Your task to perform on an android device: toggle wifi Image 0: 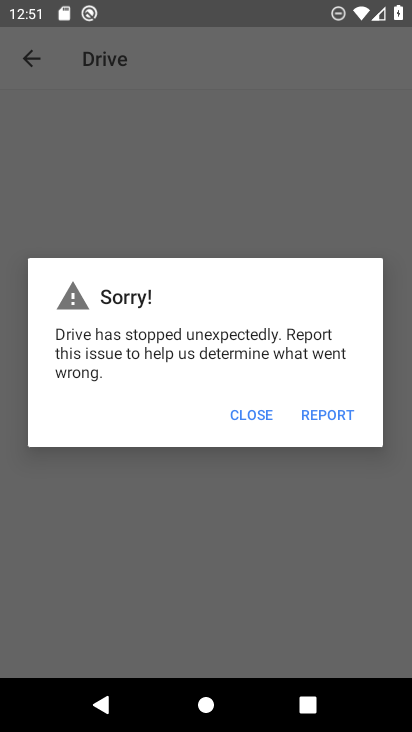
Step 0: drag from (289, 584) to (244, 457)
Your task to perform on an android device: toggle wifi Image 1: 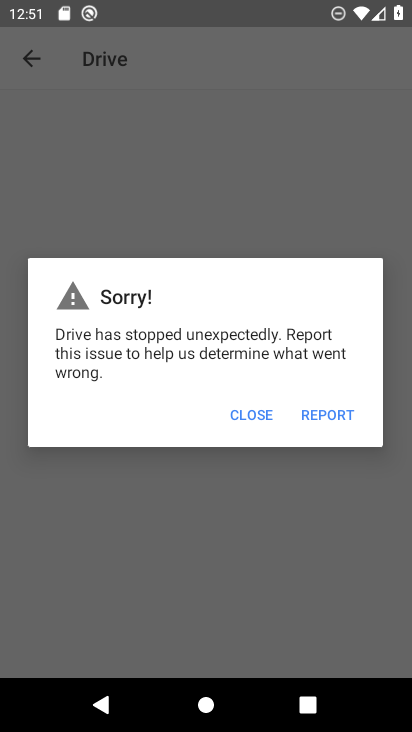
Step 1: press home button
Your task to perform on an android device: toggle wifi Image 2: 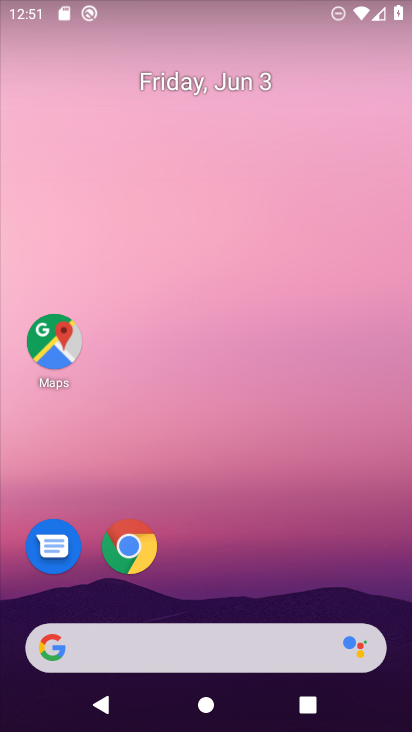
Step 2: drag from (275, 565) to (213, 82)
Your task to perform on an android device: toggle wifi Image 3: 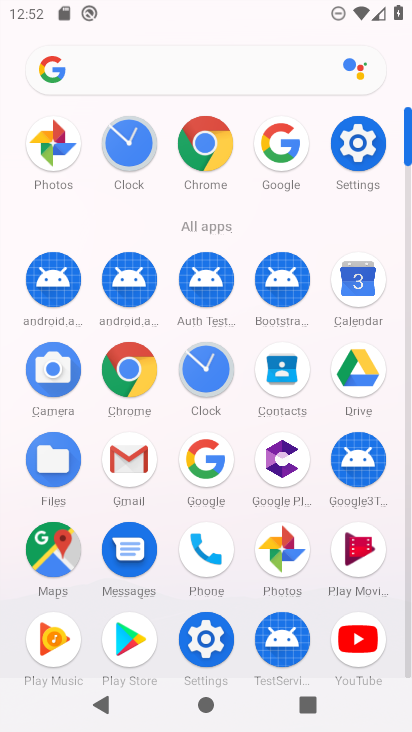
Step 3: click (358, 141)
Your task to perform on an android device: toggle wifi Image 4: 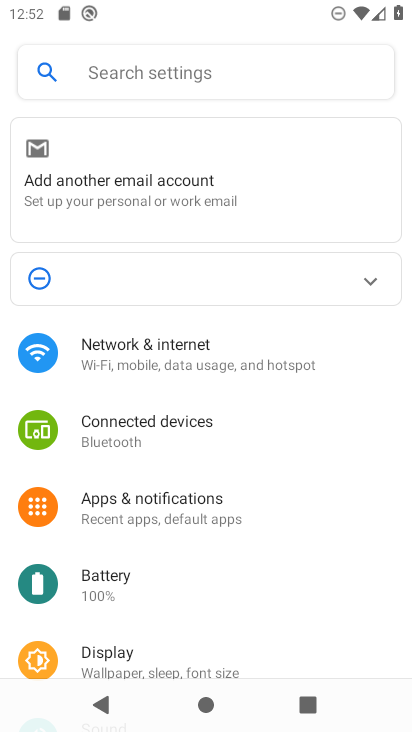
Step 4: click (162, 370)
Your task to perform on an android device: toggle wifi Image 5: 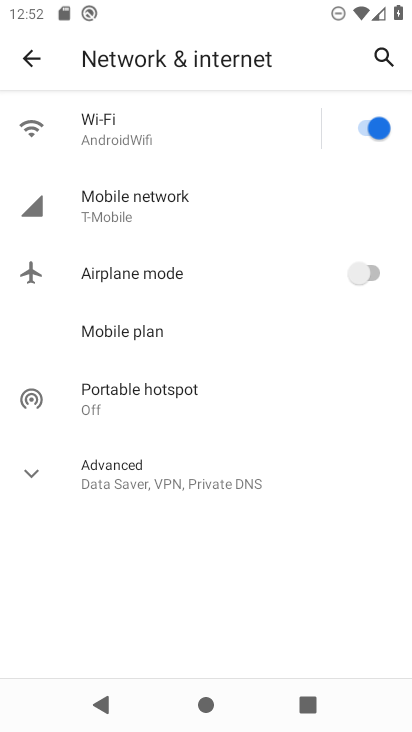
Step 5: click (363, 122)
Your task to perform on an android device: toggle wifi Image 6: 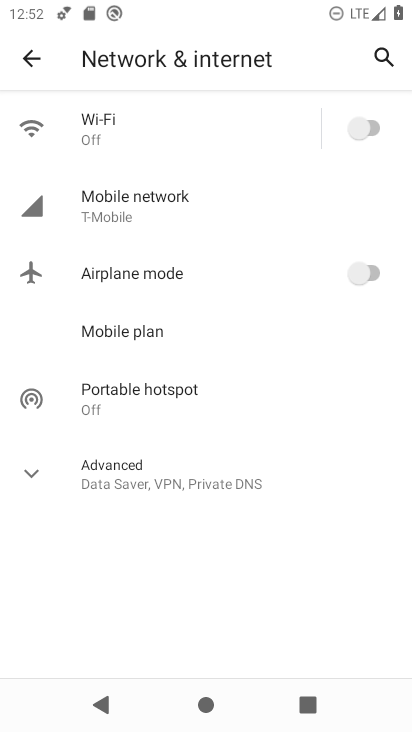
Step 6: task complete